Your task to perform on an android device: toggle wifi Image 0: 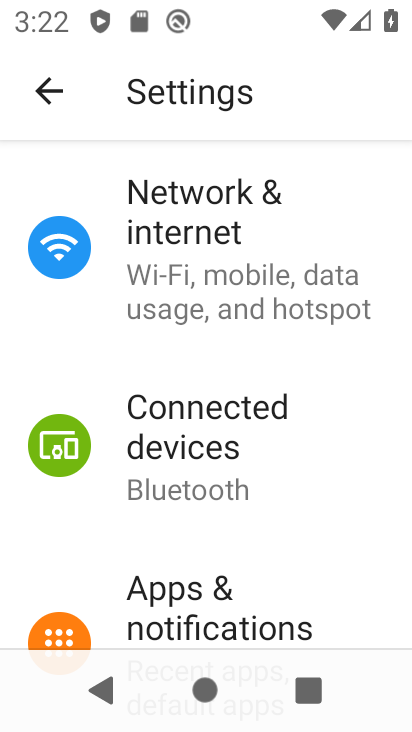
Step 0: click (196, 264)
Your task to perform on an android device: toggle wifi Image 1: 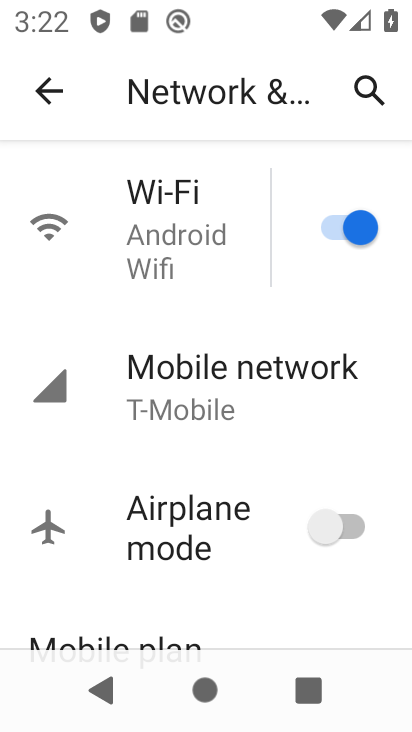
Step 1: click (338, 233)
Your task to perform on an android device: toggle wifi Image 2: 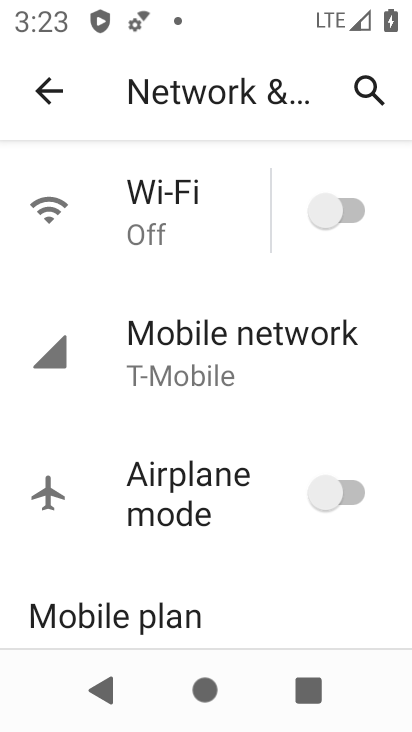
Step 2: task complete